Your task to perform on an android device: Open Youtube and go to "Your channel" Image 0: 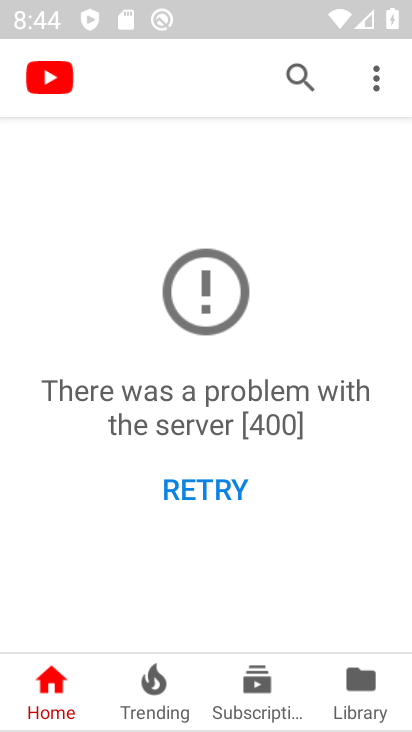
Step 0: click (317, 59)
Your task to perform on an android device: Open Youtube and go to "Your channel" Image 1: 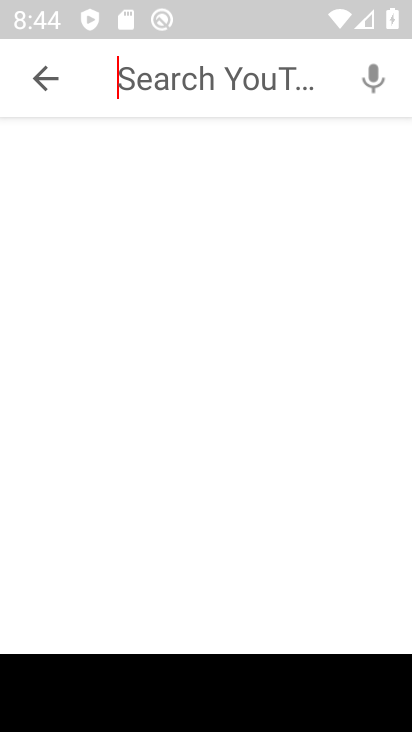
Step 1: type "your channel"
Your task to perform on an android device: Open Youtube and go to "Your channel" Image 2: 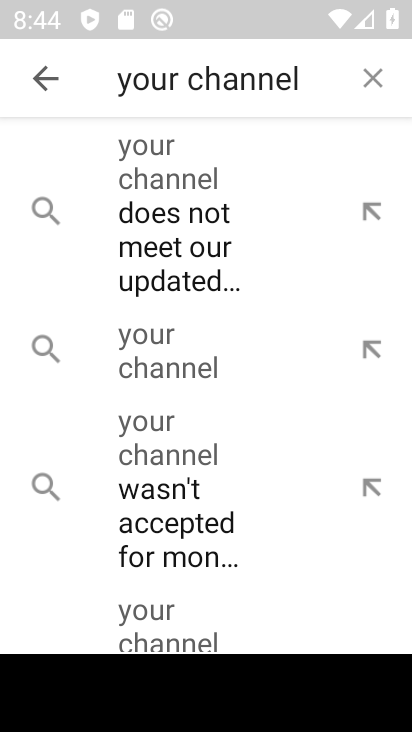
Step 2: click (252, 351)
Your task to perform on an android device: Open Youtube and go to "Your channel" Image 3: 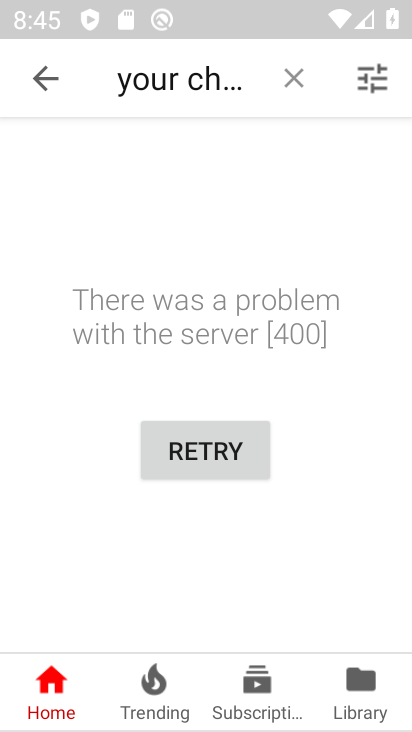
Step 3: task complete